Your task to perform on an android device: Open Wikipedia Image 0: 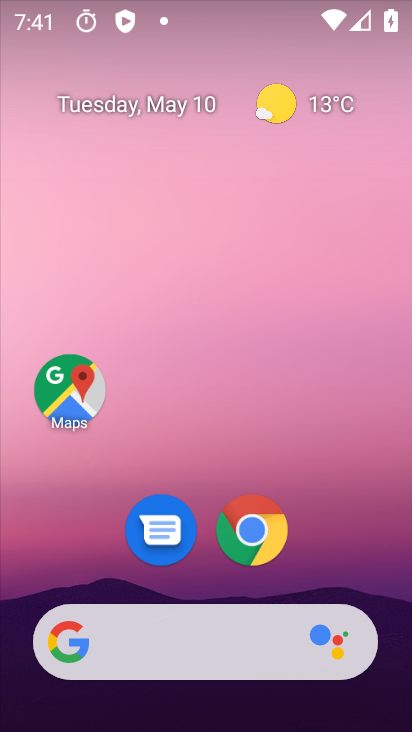
Step 0: click (259, 536)
Your task to perform on an android device: Open Wikipedia Image 1: 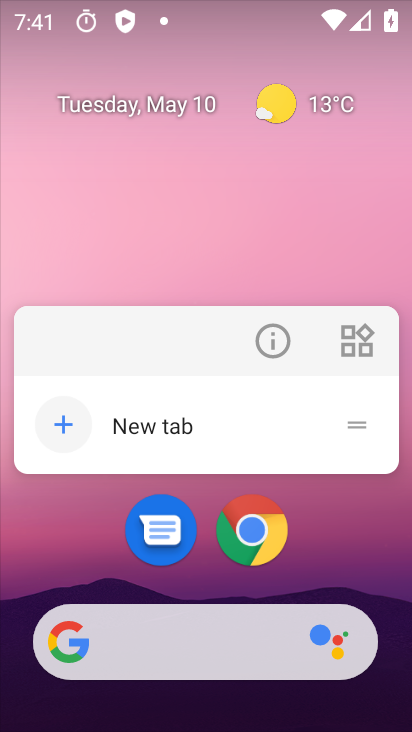
Step 1: click (260, 535)
Your task to perform on an android device: Open Wikipedia Image 2: 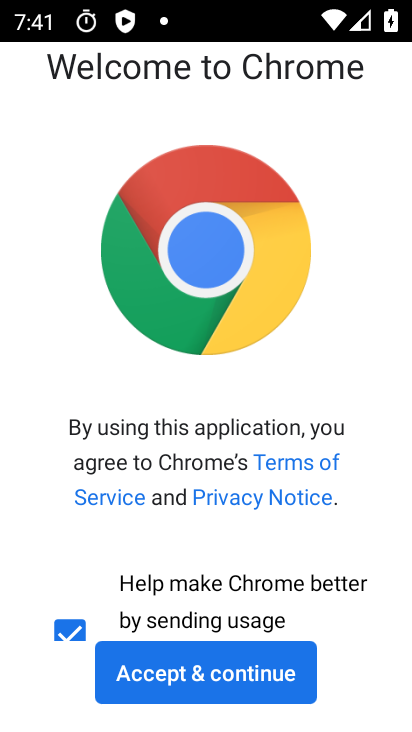
Step 2: click (278, 689)
Your task to perform on an android device: Open Wikipedia Image 3: 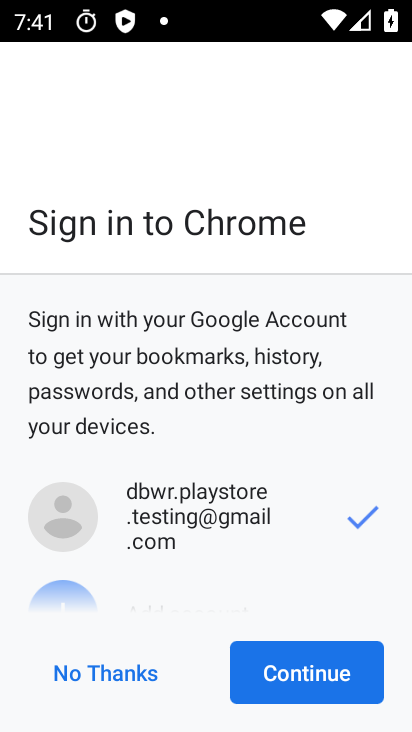
Step 3: click (292, 686)
Your task to perform on an android device: Open Wikipedia Image 4: 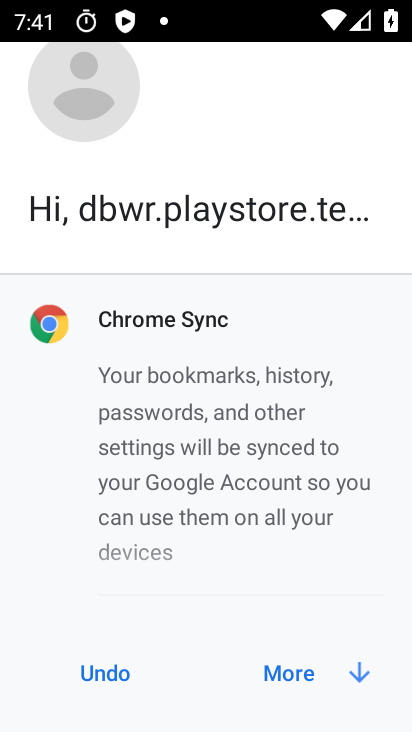
Step 4: click (315, 683)
Your task to perform on an android device: Open Wikipedia Image 5: 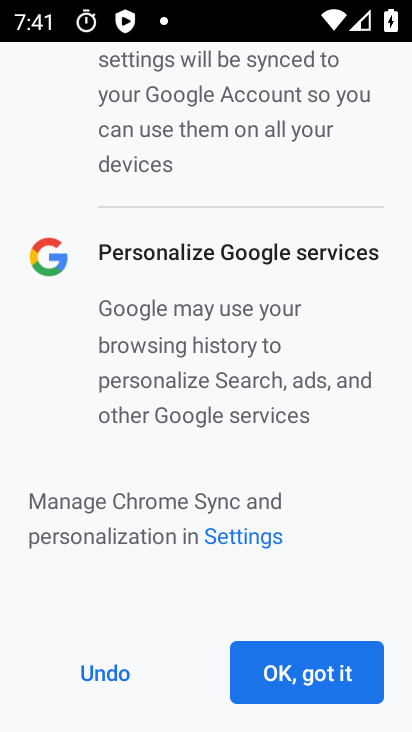
Step 5: click (319, 672)
Your task to perform on an android device: Open Wikipedia Image 6: 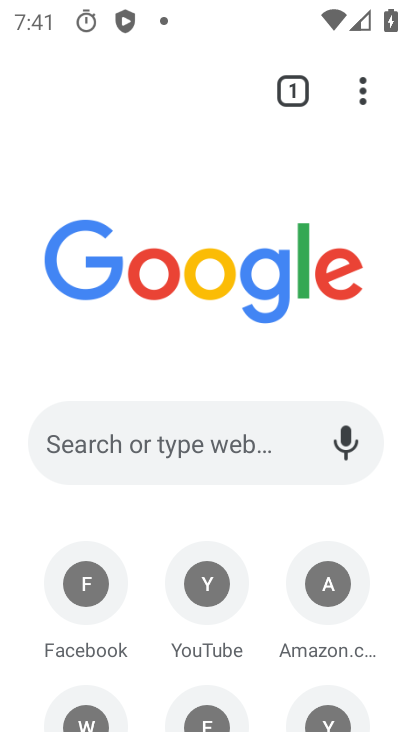
Step 6: click (231, 89)
Your task to perform on an android device: Open Wikipedia Image 7: 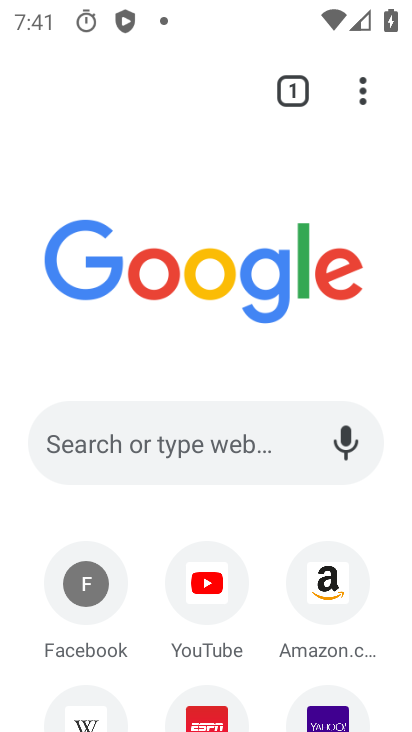
Step 7: click (74, 714)
Your task to perform on an android device: Open Wikipedia Image 8: 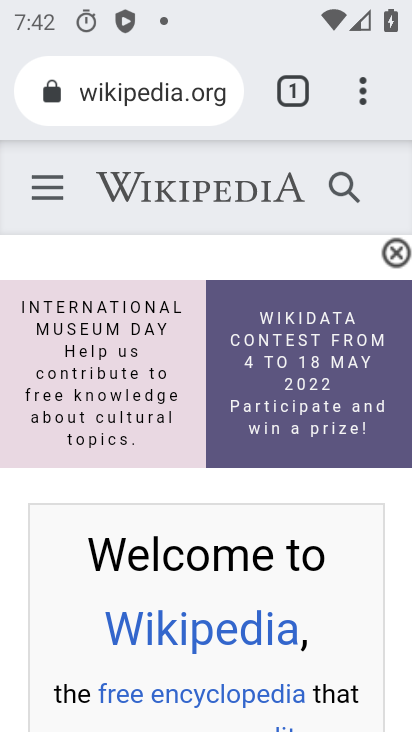
Step 8: task complete